Your task to perform on an android device: Open notification settings Image 0: 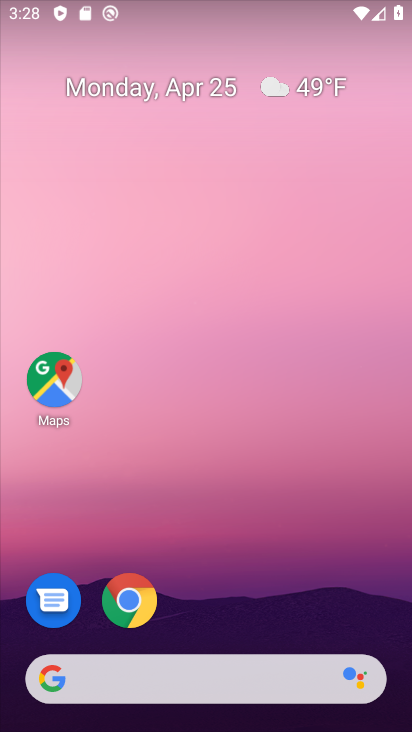
Step 0: drag from (249, 614) to (282, 26)
Your task to perform on an android device: Open notification settings Image 1: 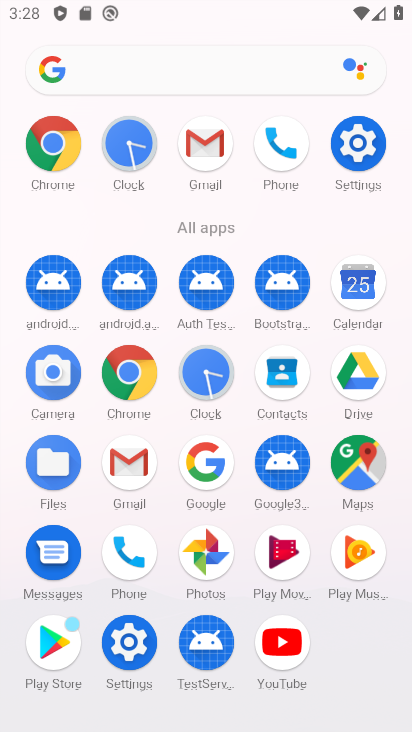
Step 1: click (366, 133)
Your task to perform on an android device: Open notification settings Image 2: 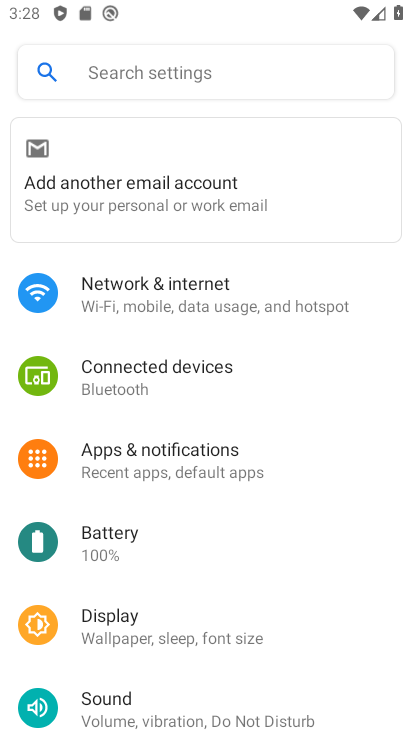
Step 2: click (213, 458)
Your task to perform on an android device: Open notification settings Image 3: 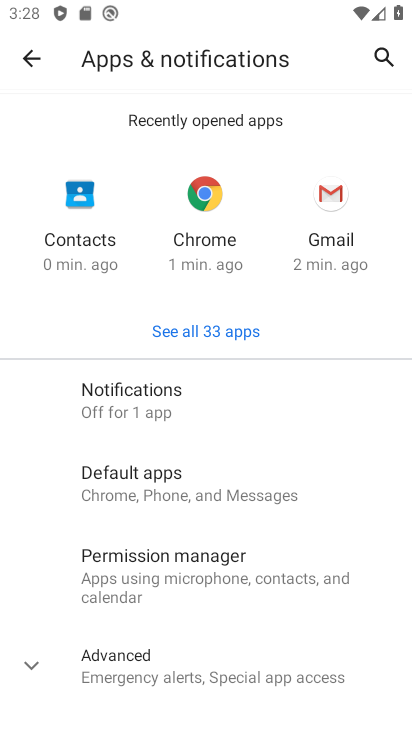
Step 3: task complete